Your task to perform on an android device: Go to ESPN.com Image 0: 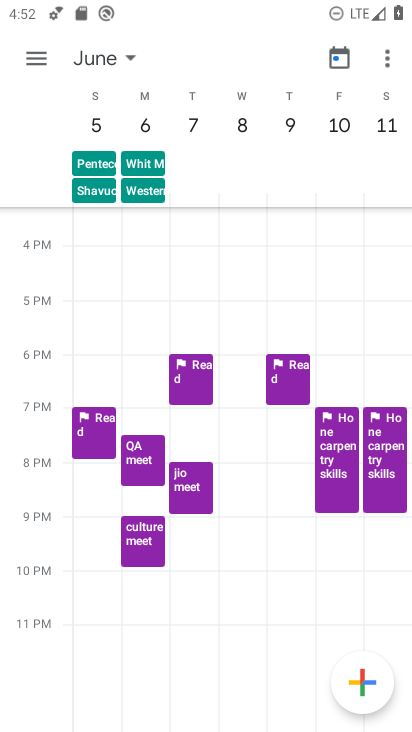
Step 0: press home button
Your task to perform on an android device: Go to ESPN.com Image 1: 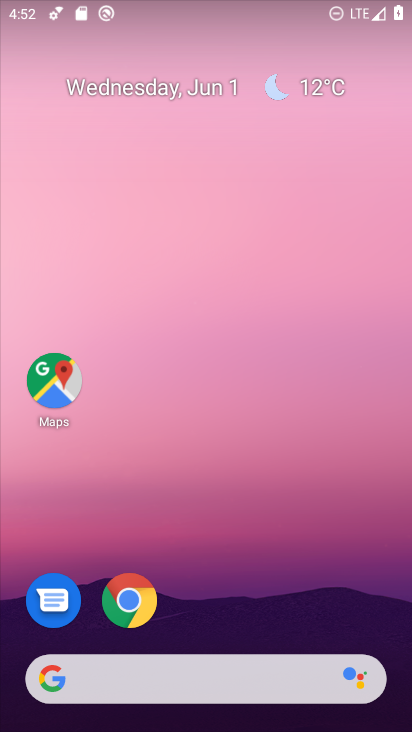
Step 1: click (132, 600)
Your task to perform on an android device: Go to ESPN.com Image 2: 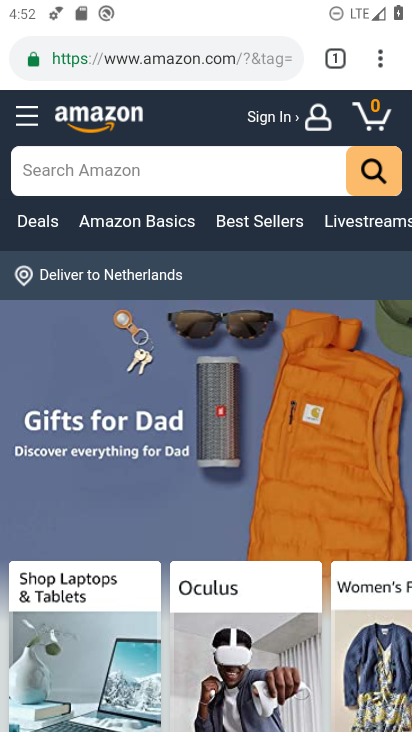
Step 2: click (274, 43)
Your task to perform on an android device: Go to ESPN.com Image 3: 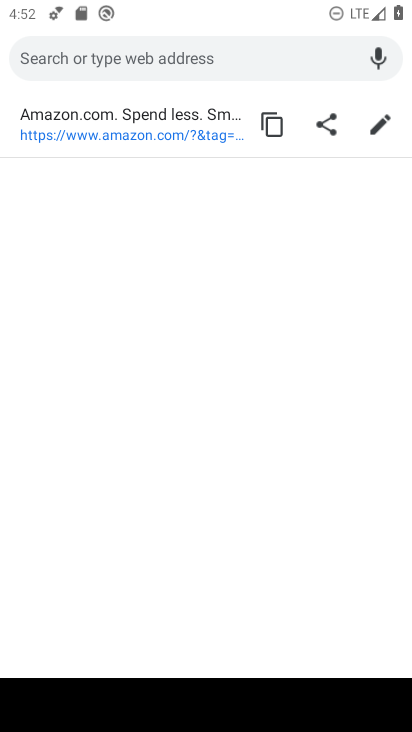
Step 3: type "espn.com"
Your task to perform on an android device: Go to ESPN.com Image 4: 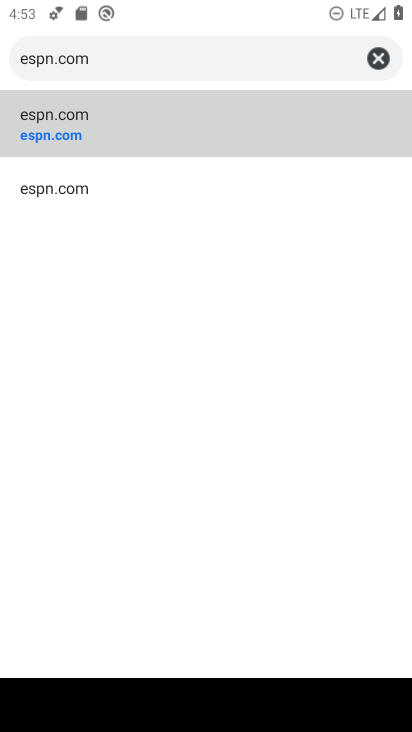
Step 4: click (60, 132)
Your task to perform on an android device: Go to ESPN.com Image 5: 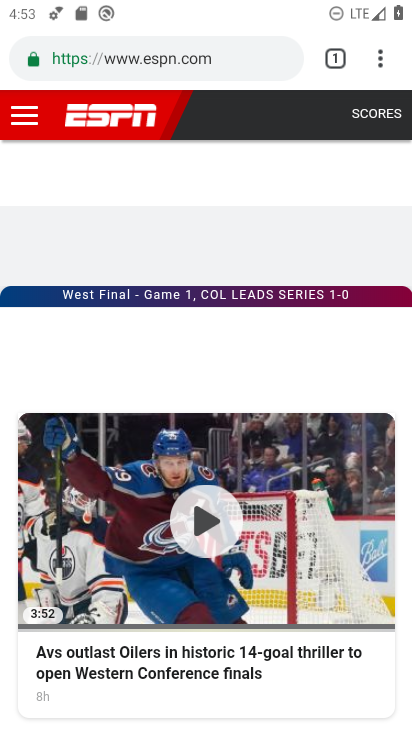
Step 5: task complete